Your task to perform on an android device: Do I have any events this weekend? Image 0: 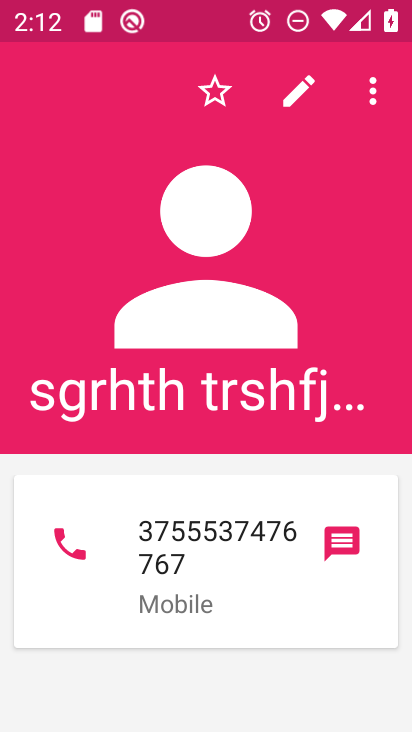
Step 0: press home button
Your task to perform on an android device: Do I have any events this weekend? Image 1: 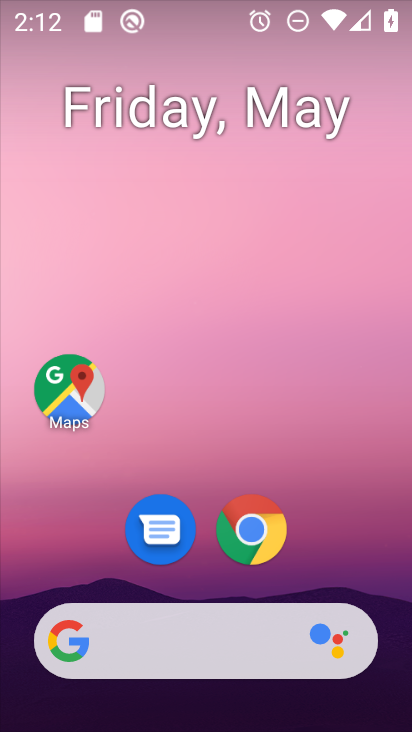
Step 1: drag from (403, 680) to (347, 243)
Your task to perform on an android device: Do I have any events this weekend? Image 2: 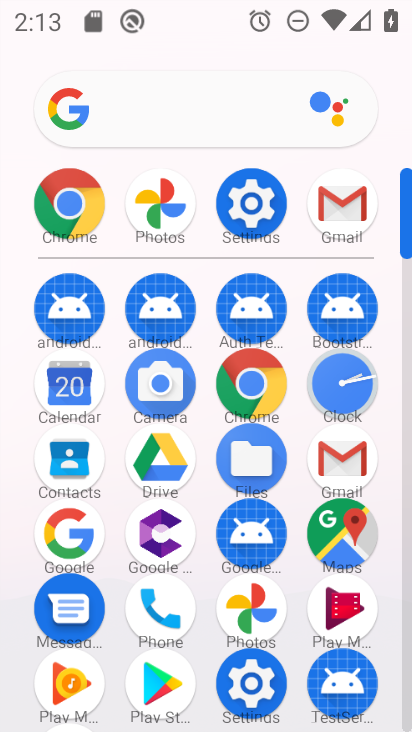
Step 2: click (62, 385)
Your task to perform on an android device: Do I have any events this weekend? Image 3: 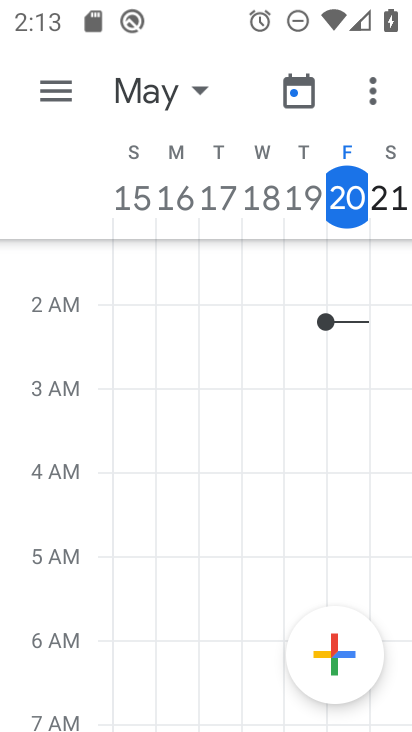
Step 3: task complete